Your task to perform on an android device: What's the weather? Image 0: 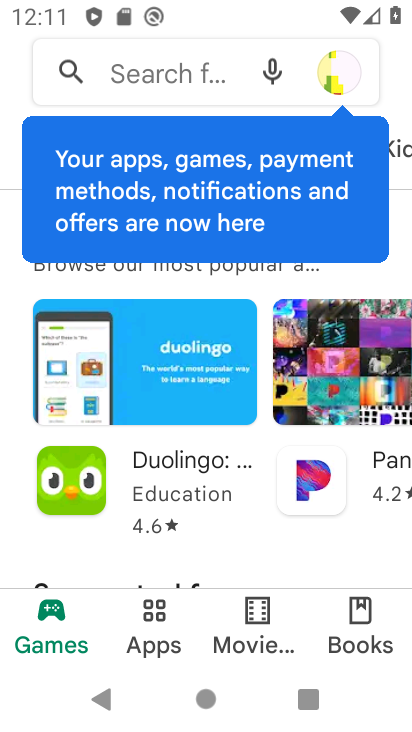
Step 0: press home button
Your task to perform on an android device: What's the weather? Image 1: 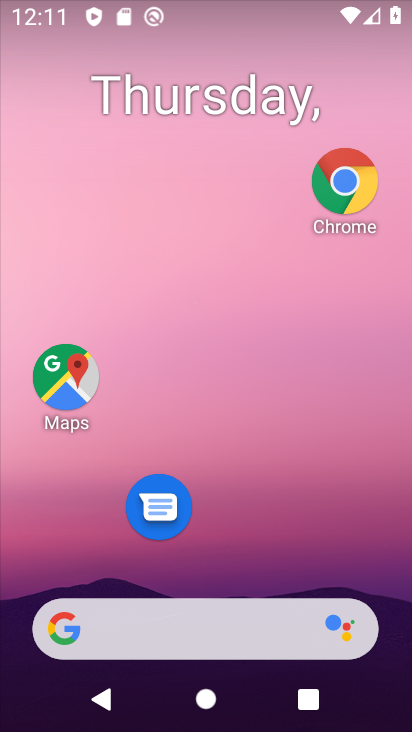
Step 1: drag from (195, 585) to (273, 144)
Your task to perform on an android device: What's the weather? Image 2: 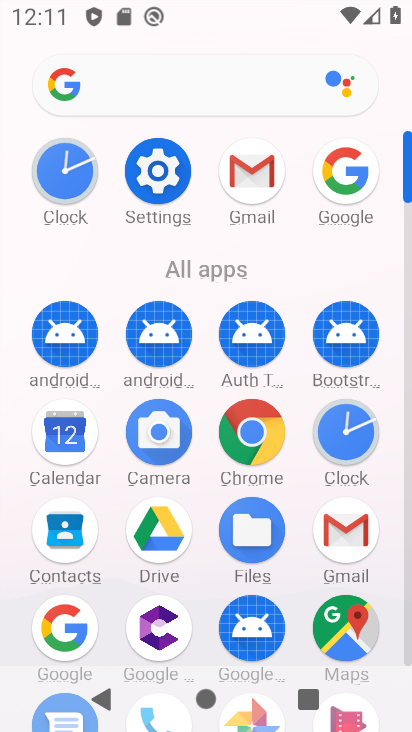
Step 2: click (70, 640)
Your task to perform on an android device: What's the weather? Image 3: 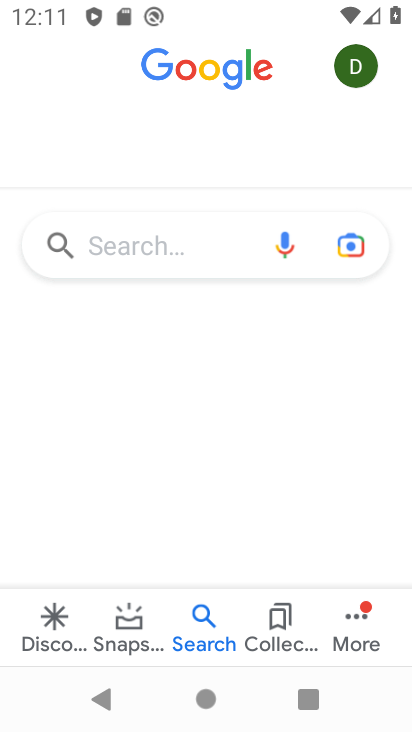
Step 3: click (182, 242)
Your task to perform on an android device: What's the weather? Image 4: 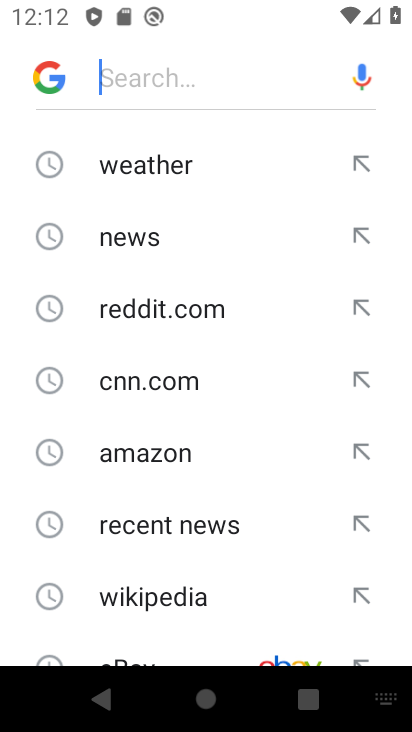
Step 4: click (212, 171)
Your task to perform on an android device: What's the weather? Image 5: 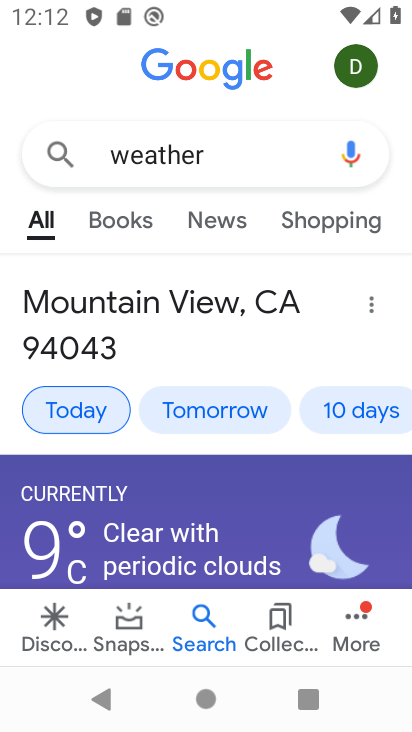
Step 5: task complete